Your task to perform on an android device: Open notification settings Image 0: 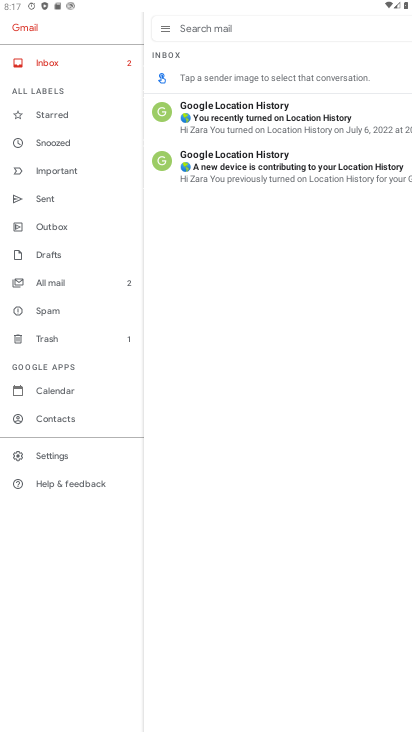
Step 0: press home button
Your task to perform on an android device: Open notification settings Image 1: 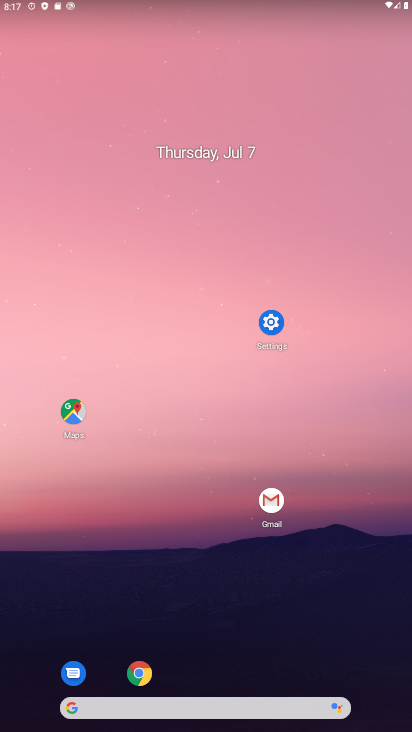
Step 1: drag from (386, 655) to (279, 54)
Your task to perform on an android device: Open notification settings Image 2: 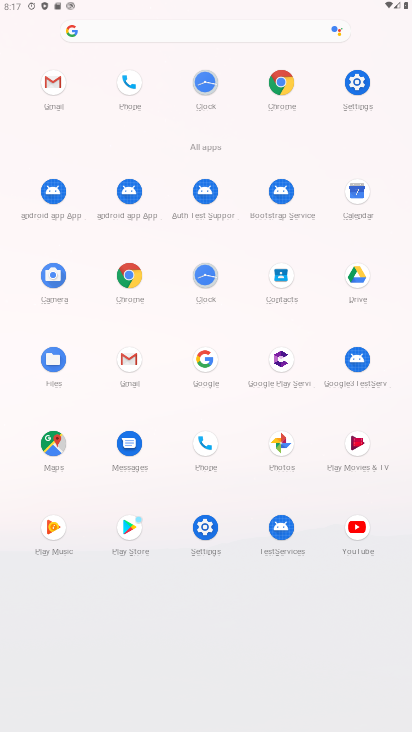
Step 2: click (357, 83)
Your task to perform on an android device: Open notification settings Image 3: 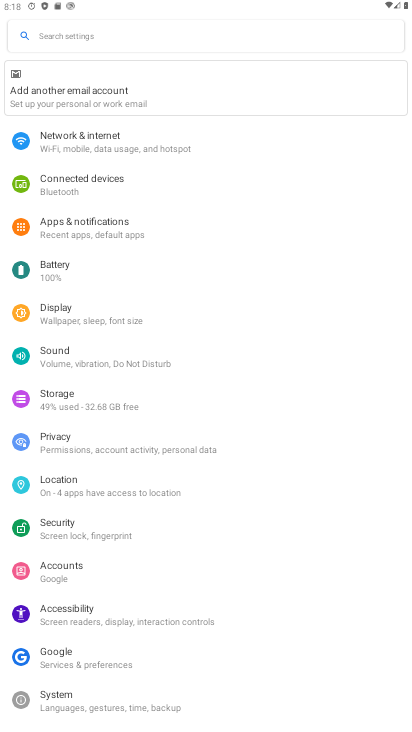
Step 3: click (102, 220)
Your task to perform on an android device: Open notification settings Image 4: 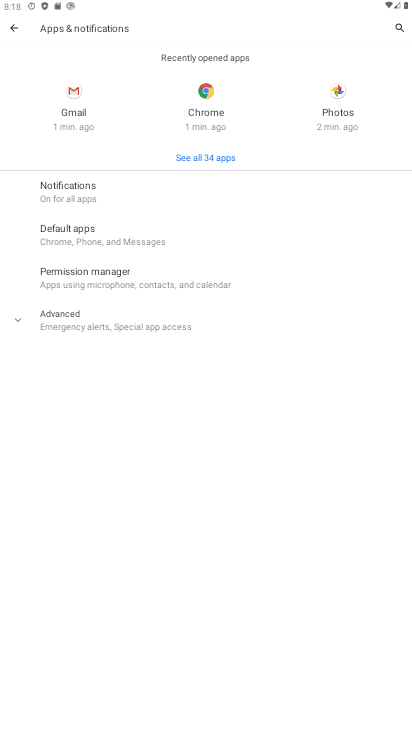
Step 4: click (56, 187)
Your task to perform on an android device: Open notification settings Image 5: 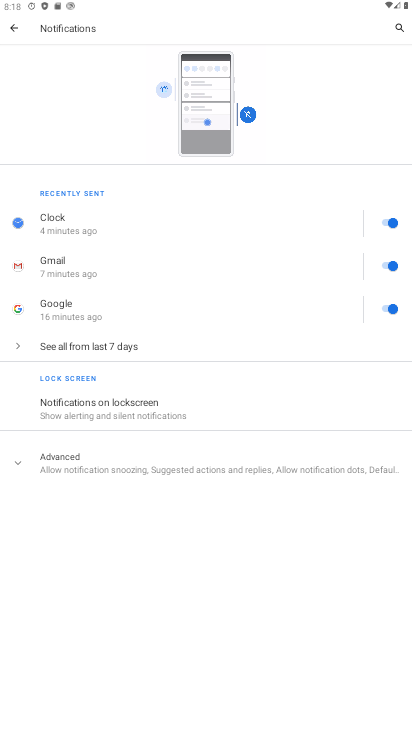
Step 5: click (34, 469)
Your task to perform on an android device: Open notification settings Image 6: 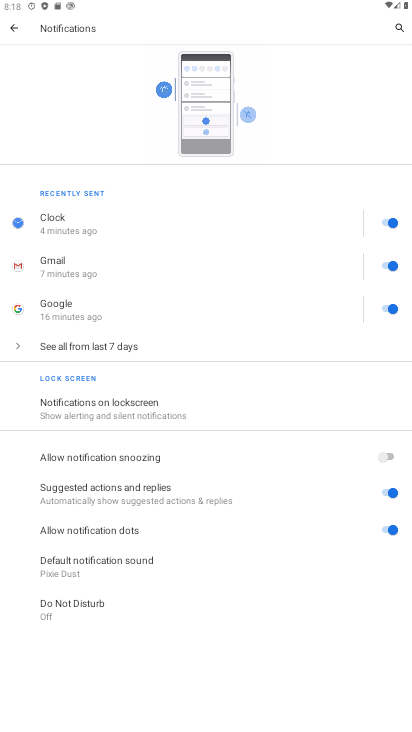
Step 6: task complete